Your task to perform on an android device: Go to Reddit.com Image 0: 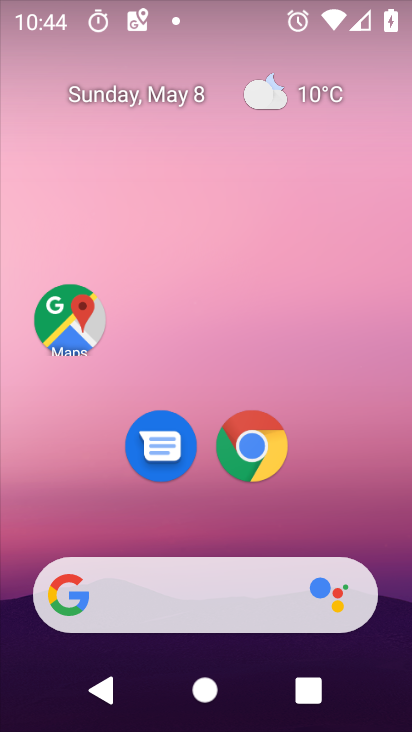
Step 0: click (260, 459)
Your task to perform on an android device: Go to Reddit.com Image 1: 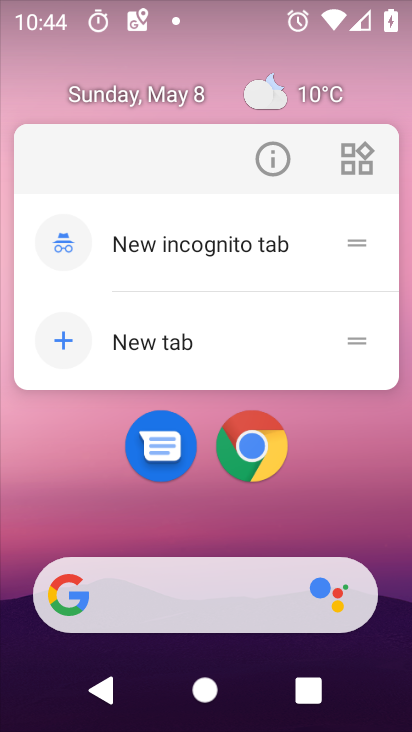
Step 1: click (257, 451)
Your task to perform on an android device: Go to Reddit.com Image 2: 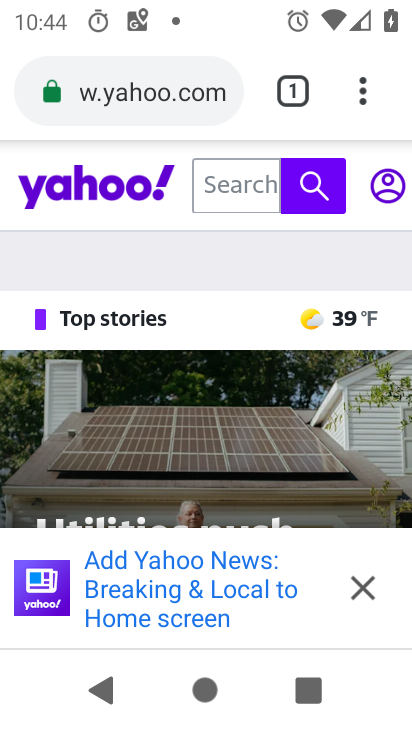
Step 2: click (142, 99)
Your task to perform on an android device: Go to Reddit.com Image 3: 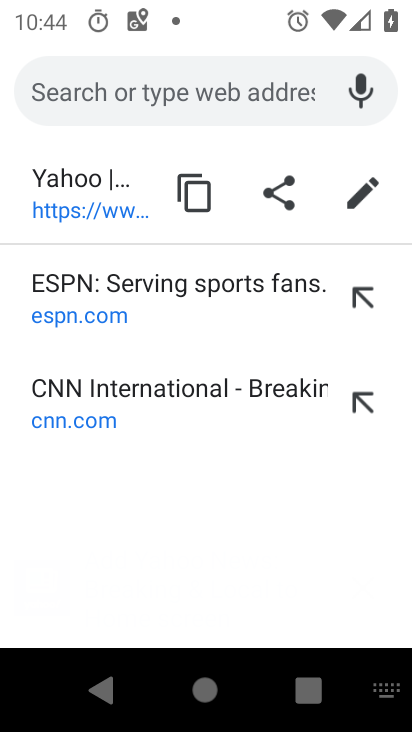
Step 3: type "reddit.com"
Your task to perform on an android device: Go to Reddit.com Image 4: 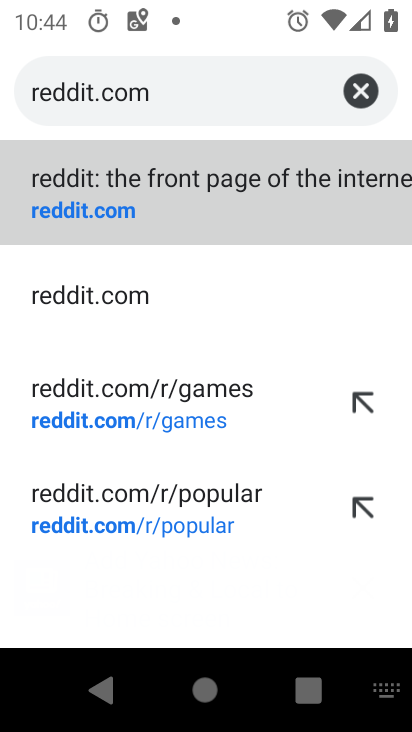
Step 4: click (100, 295)
Your task to perform on an android device: Go to Reddit.com Image 5: 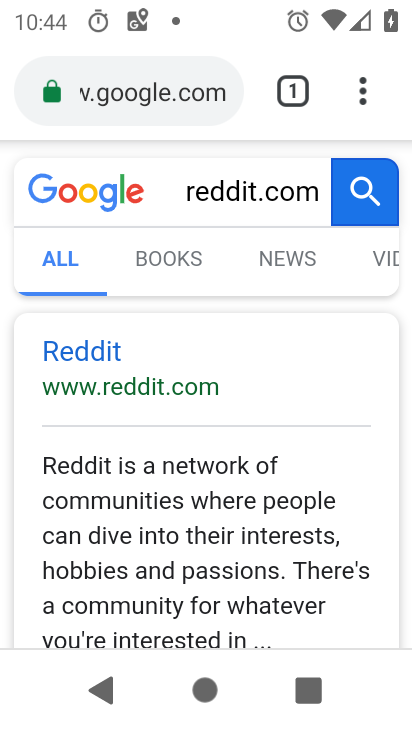
Step 5: click (80, 357)
Your task to perform on an android device: Go to Reddit.com Image 6: 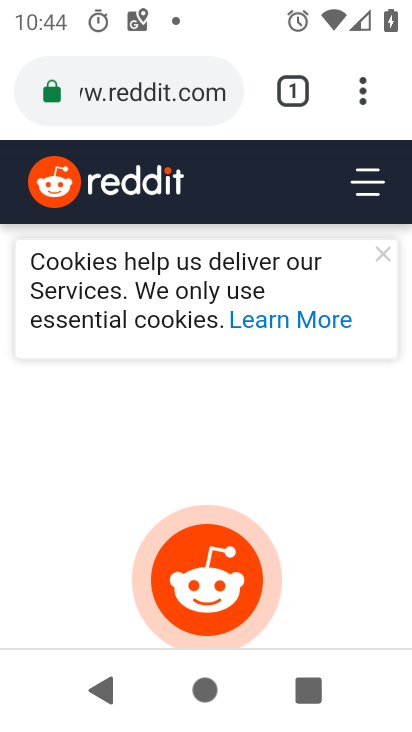
Step 6: task complete